Your task to perform on an android device: see creations saved in the google photos Image 0: 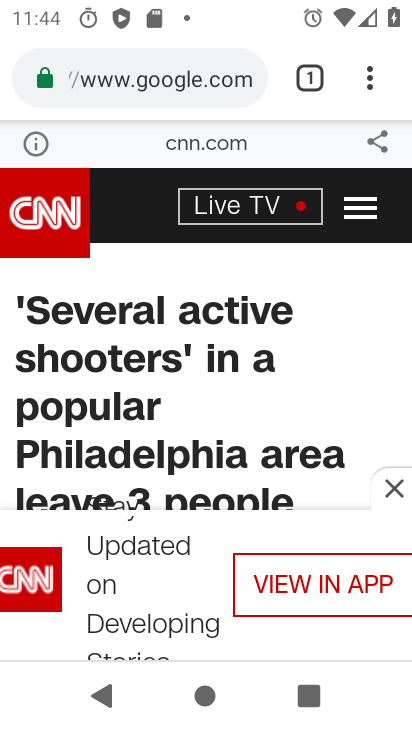
Step 0: press home button
Your task to perform on an android device: see creations saved in the google photos Image 1: 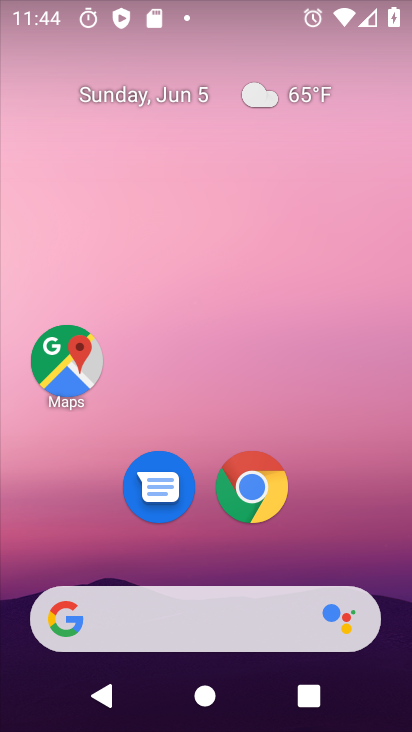
Step 1: drag from (338, 517) to (260, 46)
Your task to perform on an android device: see creations saved in the google photos Image 2: 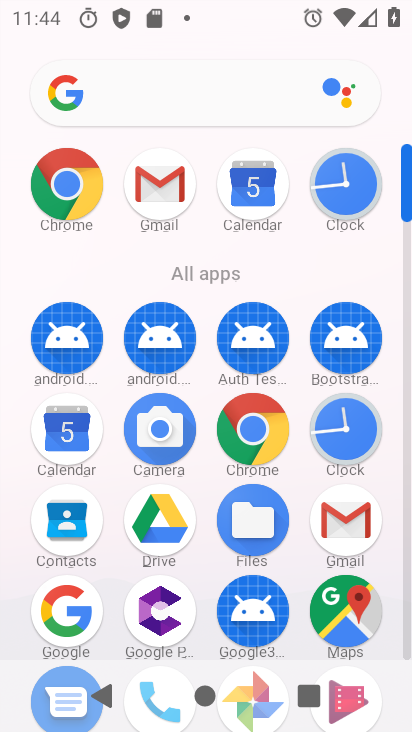
Step 2: drag from (208, 484) to (214, 281)
Your task to perform on an android device: see creations saved in the google photos Image 3: 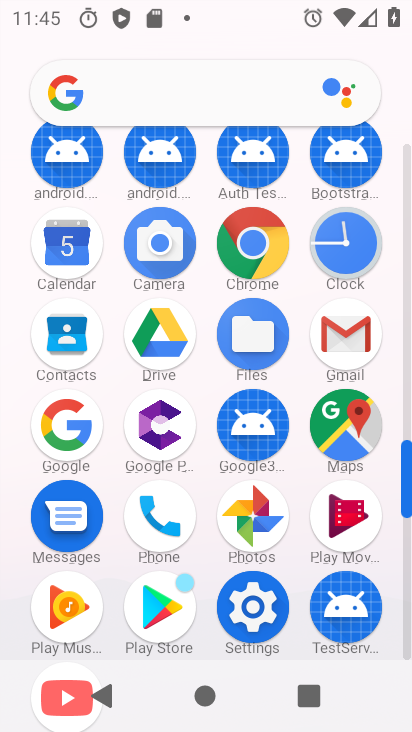
Step 3: click (252, 511)
Your task to perform on an android device: see creations saved in the google photos Image 4: 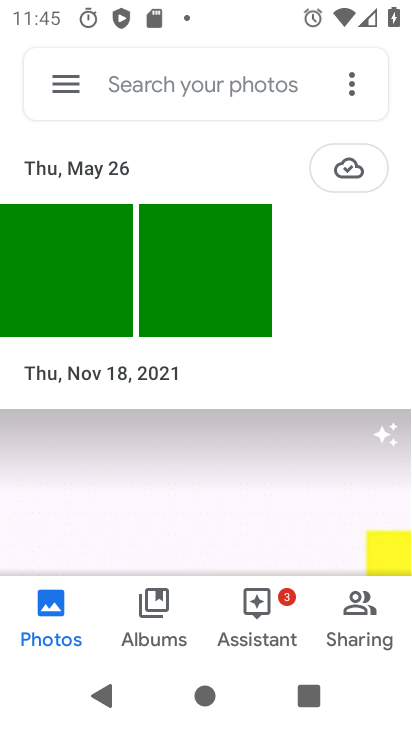
Step 4: click (69, 84)
Your task to perform on an android device: see creations saved in the google photos Image 5: 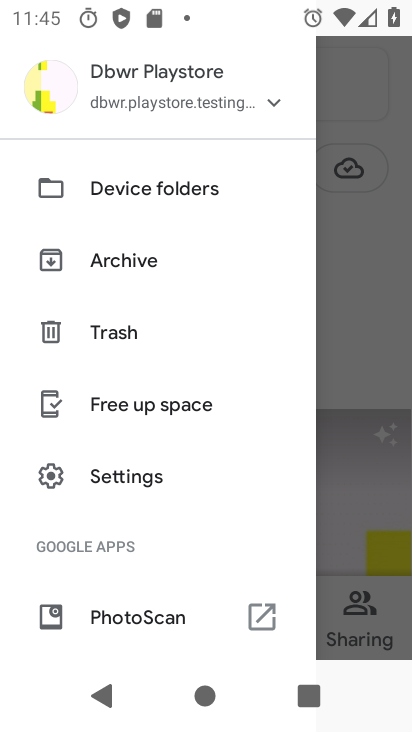
Step 5: drag from (132, 320) to (184, 225)
Your task to perform on an android device: see creations saved in the google photos Image 6: 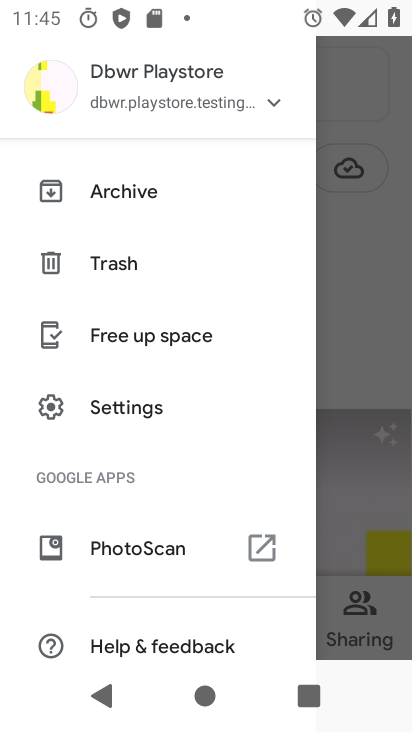
Step 6: drag from (144, 385) to (242, 215)
Your task to perform on an android device: see creations saved in the google photos Image 7: 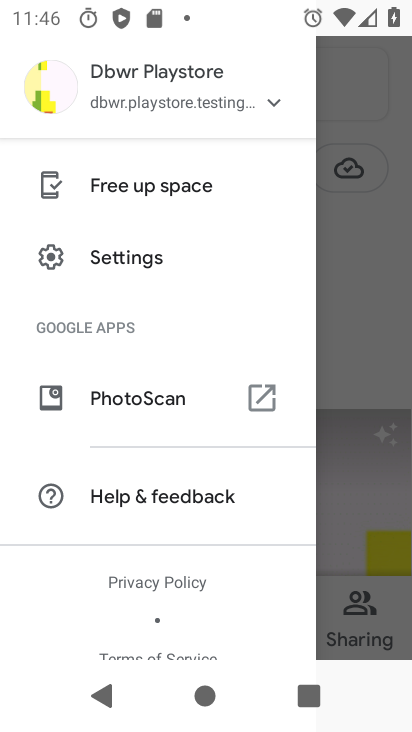
Step 7: click (158, 263)
Your task to perform on an android device: see creations saved in the google photos Image 8: 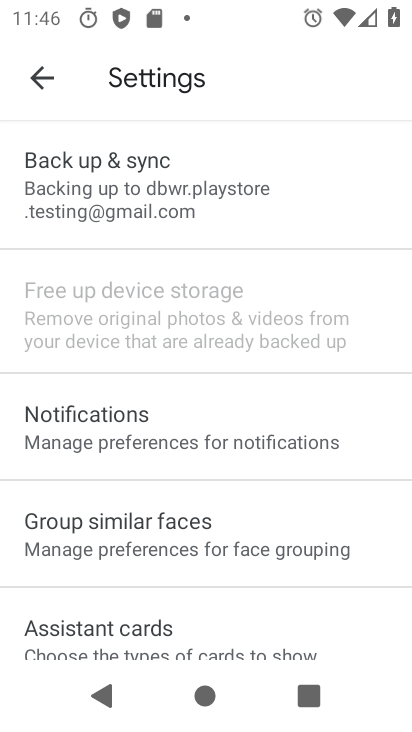
Step 8: task complete